Your task to perform on an android device: What's on my calendar tomorrow? Image 0: 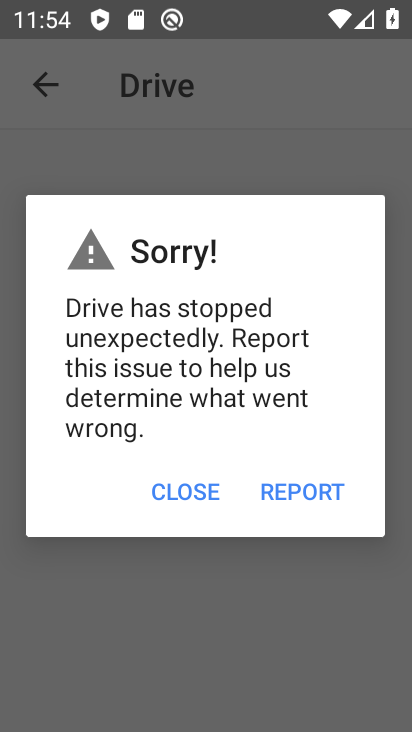
Step 0: press home button
Your task to perform on an android device: What's on my calendar tomorrow? Image 1: 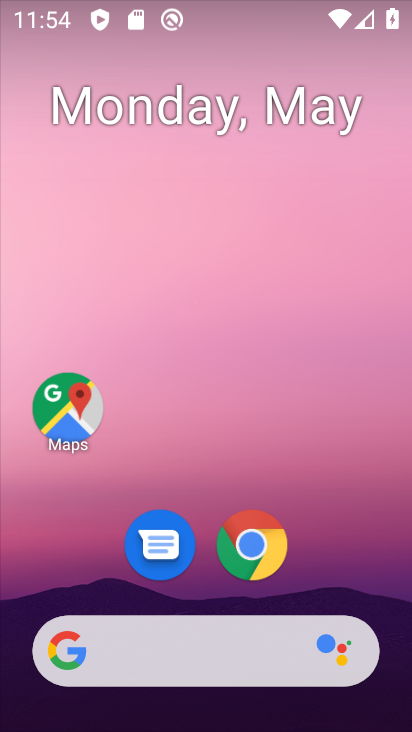
Step 1: click (284, 88)
Your task to perform on an android device: What's on my calendar tomorrow? Image 2: 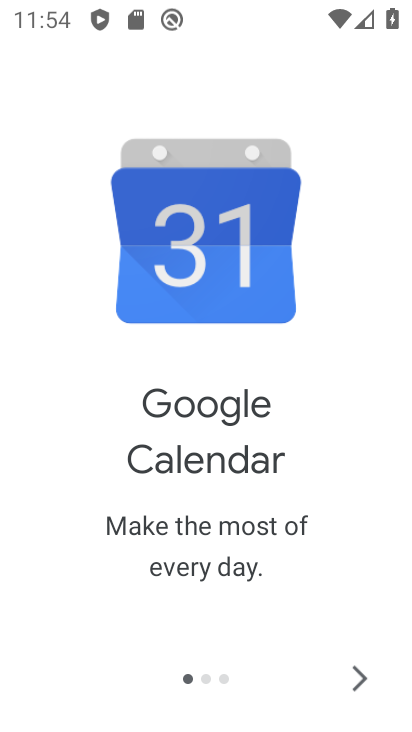
Step 2: click (371, 675)
Your task to perform on an android device: What's on my calendar tomorrow? Image 3: 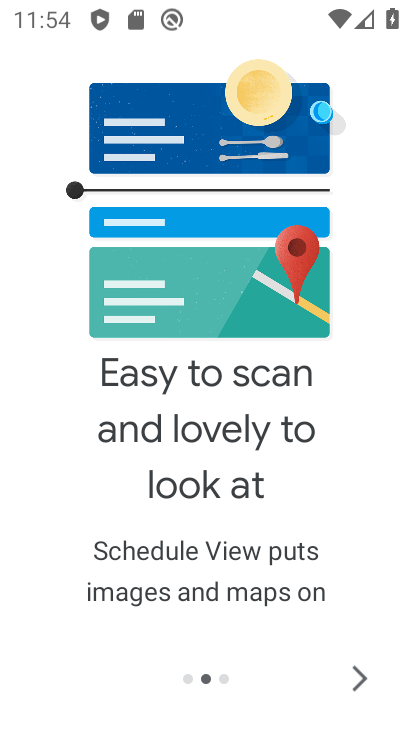
Step 3: click (371, 675)
Your task to perform on an android device: What's on my calendar tomorrow? Image 4: 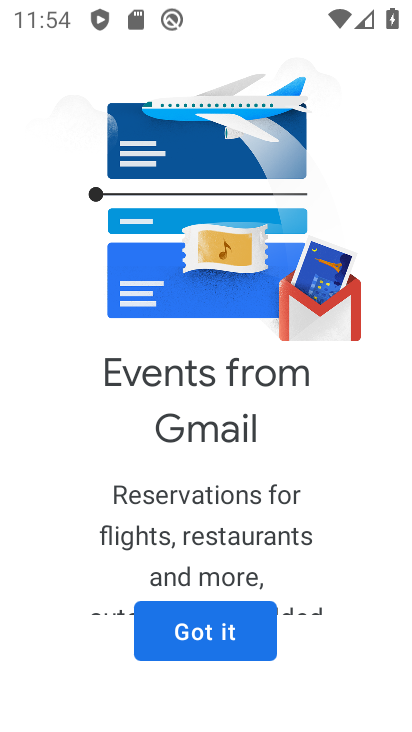
Step 4: click (211, 624)
Your task to perform on an android device: What's on my calendar tomorrow? Image 5: 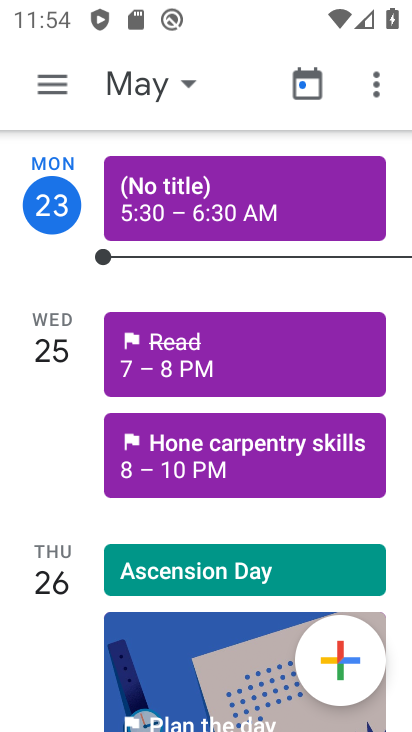
Step 5: click (131, 72)
Your task to perform on an android device: What's on my calendar tomorrow? Image 6: 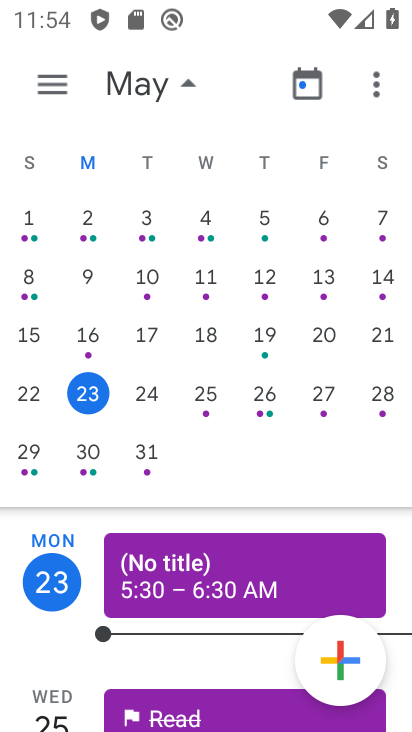
Step 6: click (155, 391)
Your task to perform on an android device: What's on my calendar tomorrow? Image 7: 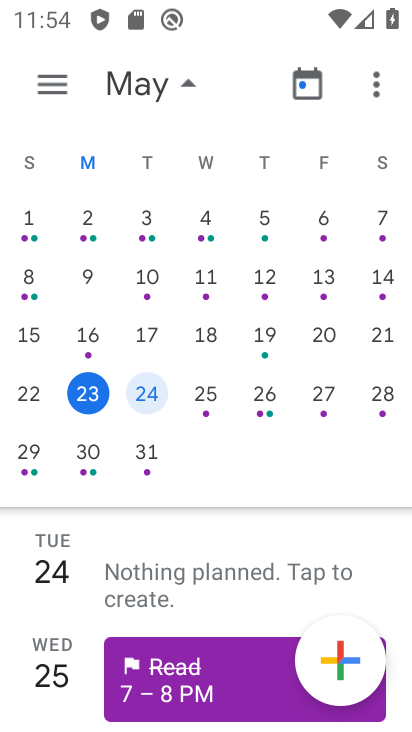
Step 7: click (181, 605)
Your task to perform on an android device: What's on my calendar tomorrow? Image 8: 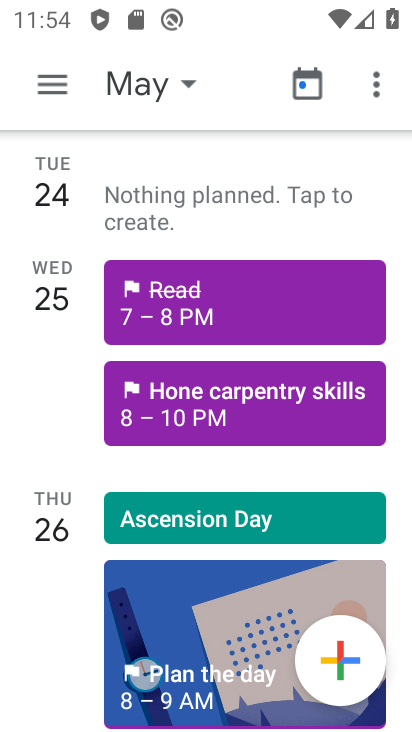
Step 8: task complete